Your task to perform on an android device: Search for a dining table on crateandbarrel.com Image 0: 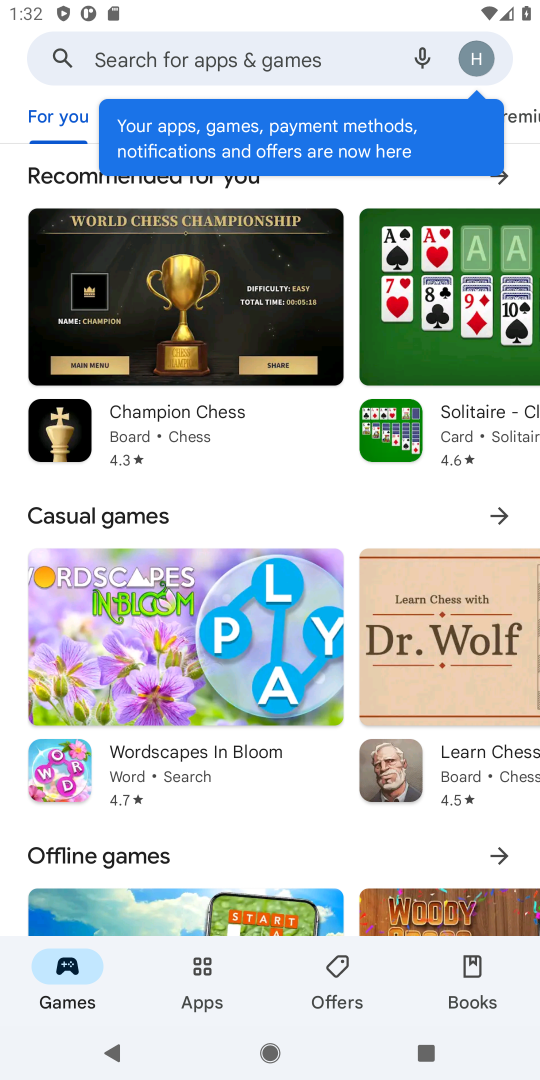
Step 0: press home button
Your task to perform on an android device: Search for a dining table on crateandbarrel.com Image 1: 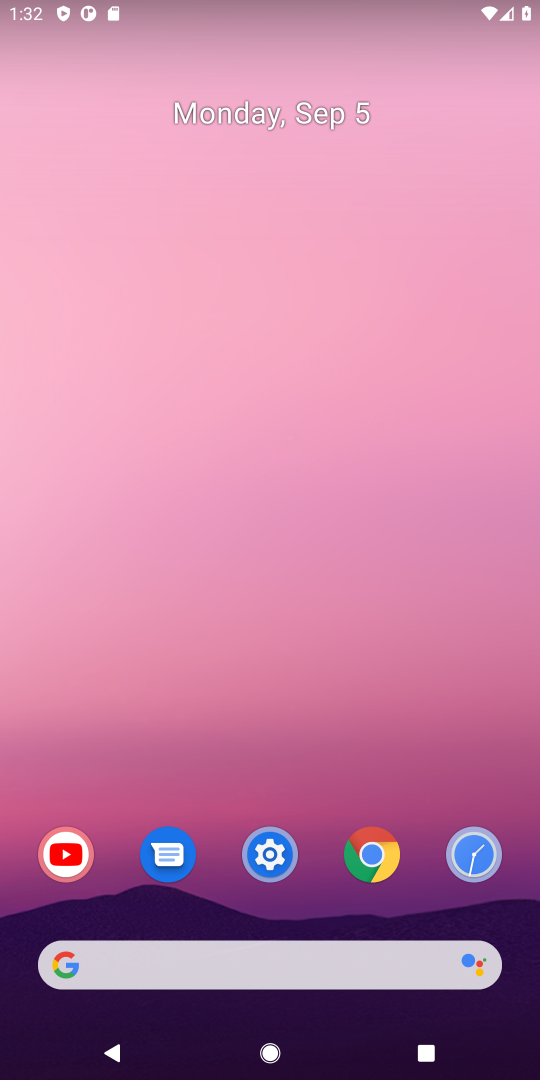
Step 1: click (356, 950)
Your task to perform on an android device: Search for a dining table on crateandbarrel.com Image 2: 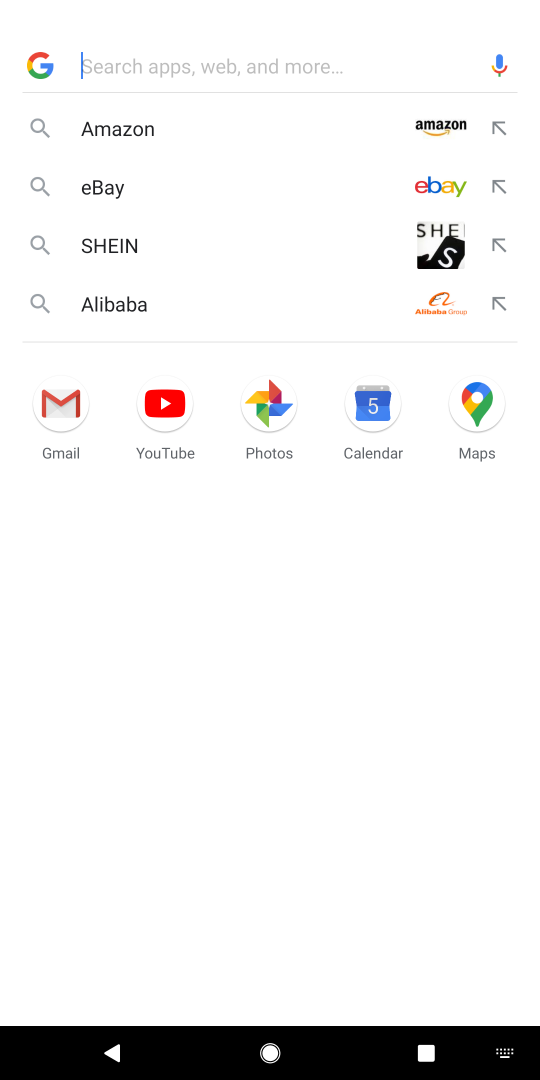
Step 2: type "crateandbarrel.com"
Your task to perform on an android device: Search for a dining table on crateandbarrel.com Image 3: 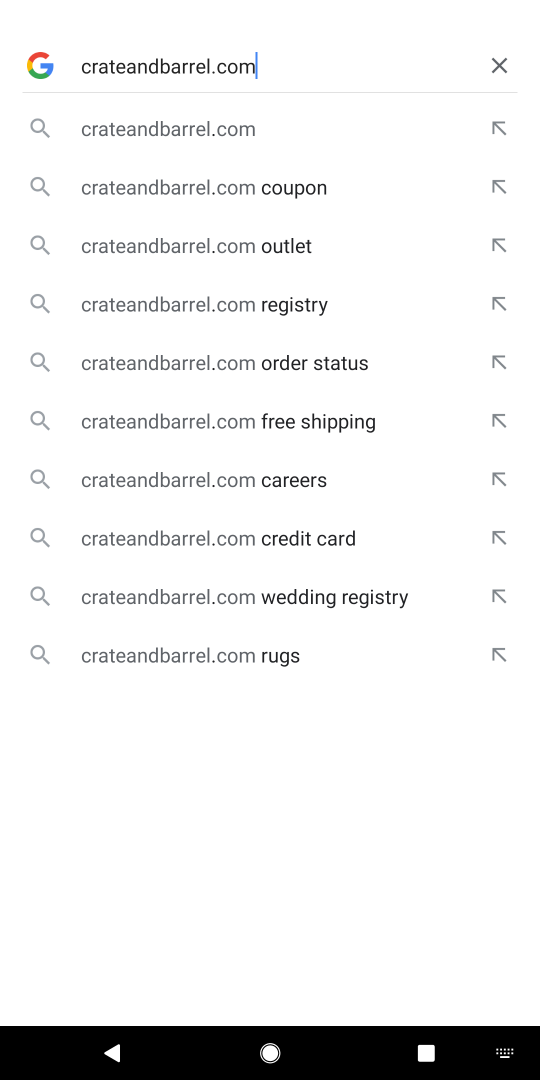
Step 3: click (200, 124)
Your task to perform on an android device: Search for a dining table on crateandbarrel.com Image 4: 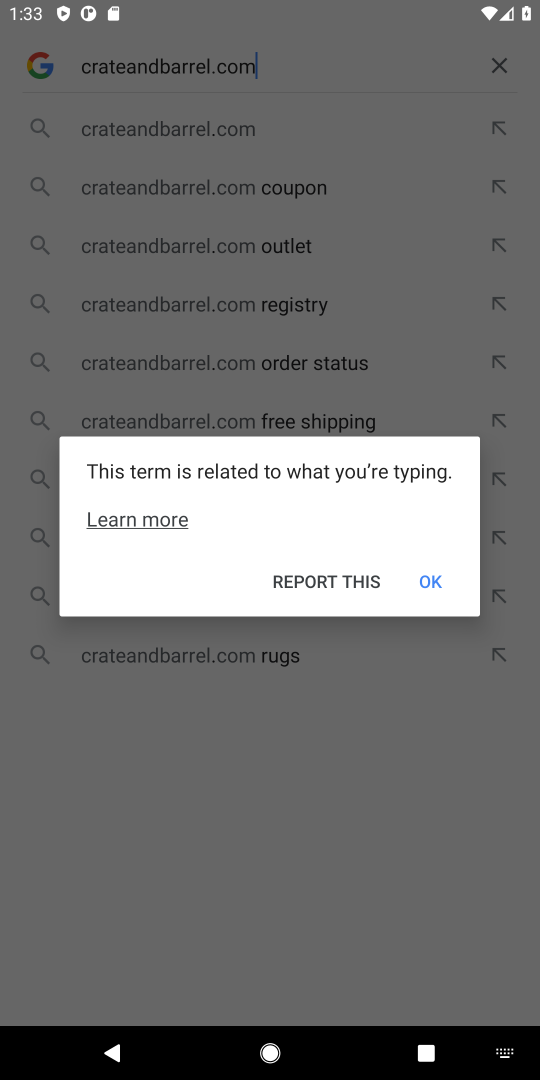
Step 4: click (442, 590)
Your task to perform on an android device: Search for a dining table on crateandbarrel.com Image 5: 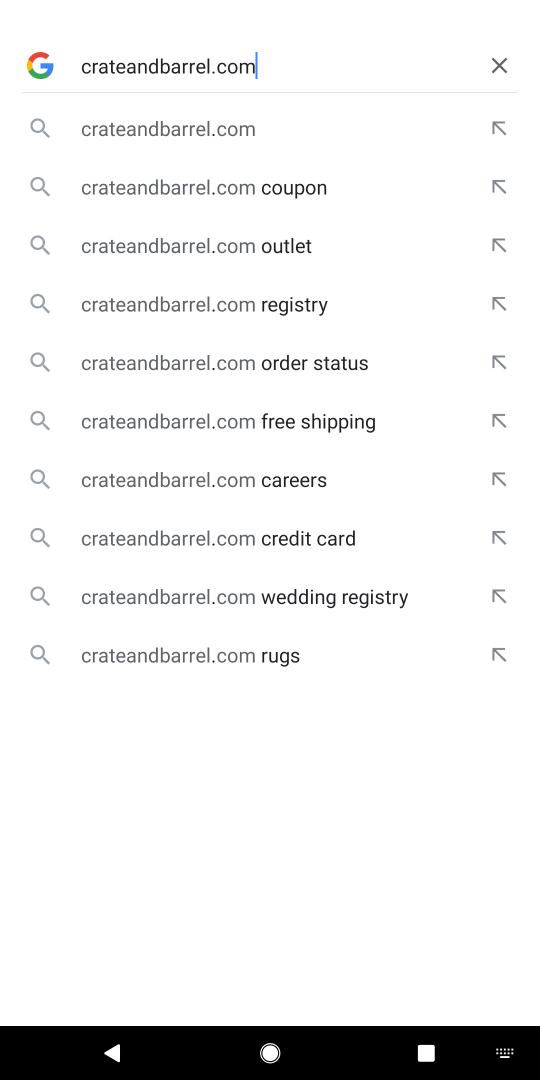
Step 5: click (289, 136)
Your task to perform on an android device: Search for a dining table on crateandbarrel.com Image 6: 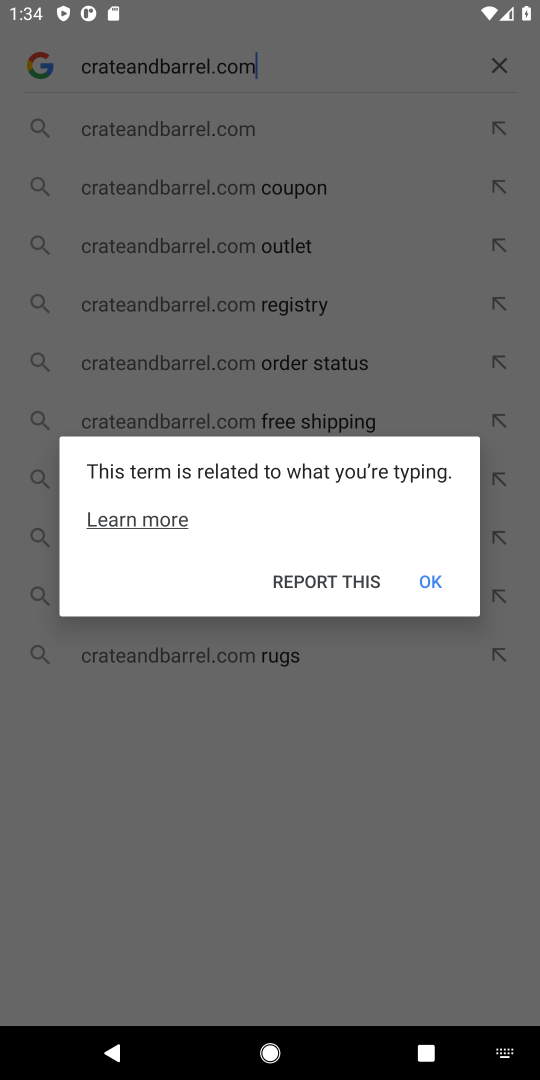
Step 6: click (443, 574)
Your task to perform on an android device: Search for a dining table on crateandbarrel.com Image 7: 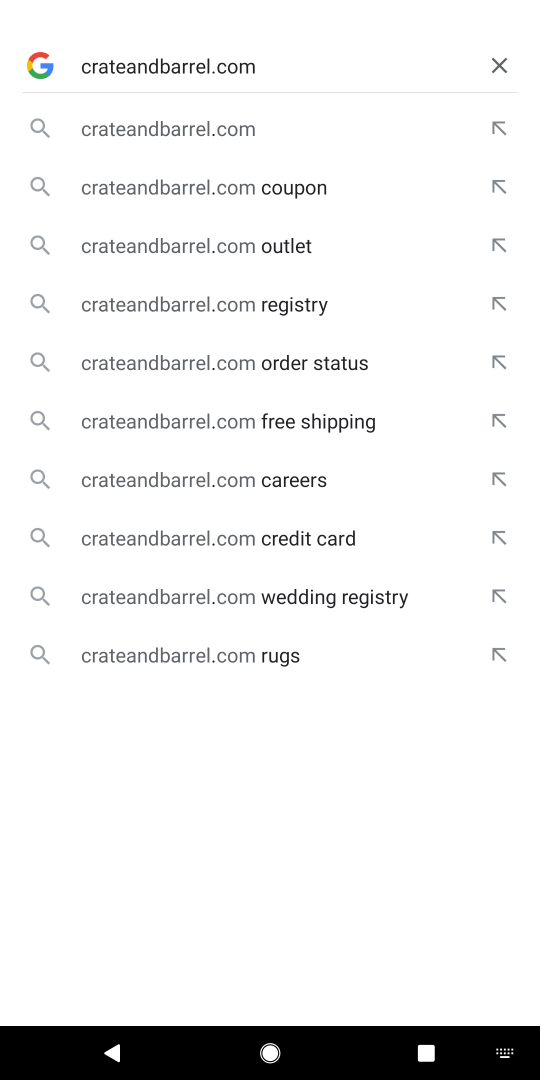
Step 7: click (235, 140)
Your task to perform on an android device: Search for a dining table on crateandbarrel.com Image 8: 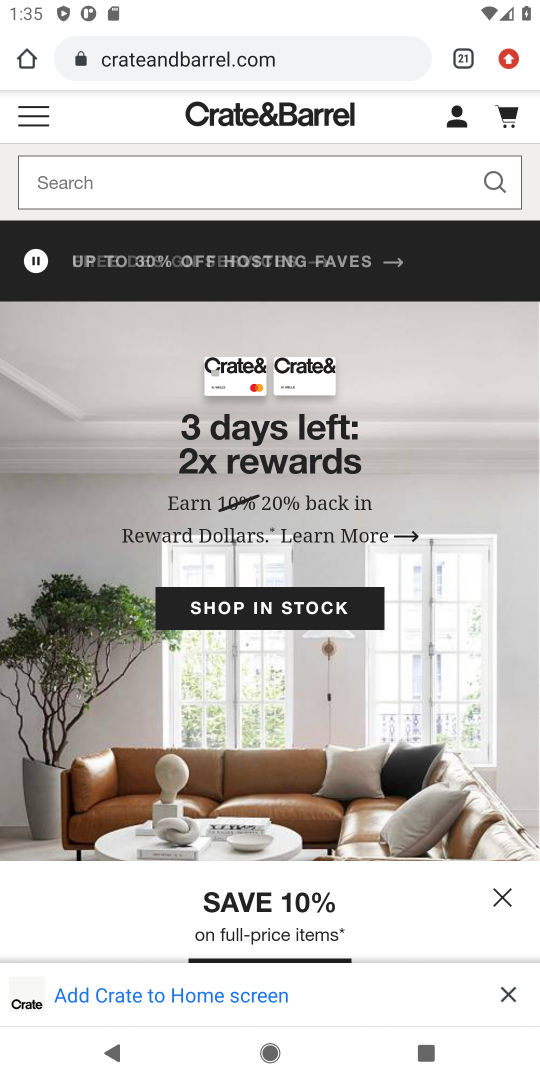
Step 8: click (311, 180)
Your task to perform on an android device: Search for a dining table on crateandbarrel.com Image 9: 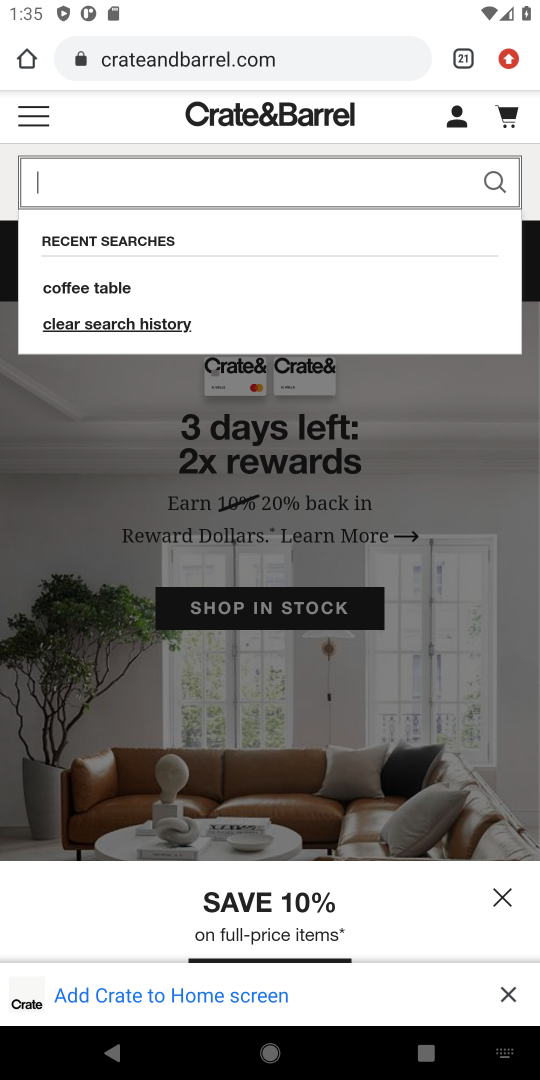
Step 9: type "dining table"
Your task to perform on an android device: Search for a dining table on crateandbarrel.com Image 10: 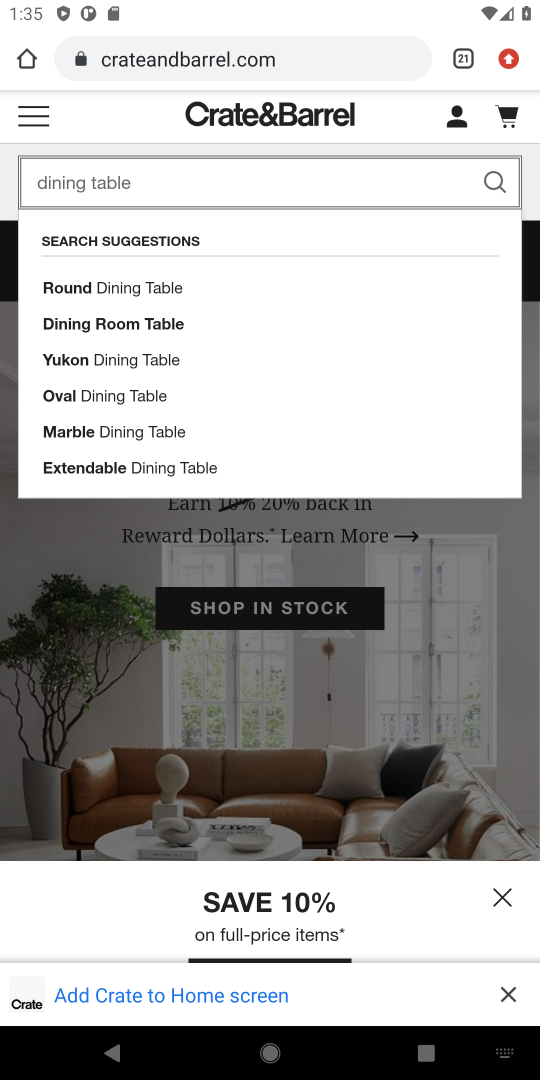
Step 10: click (502, 169)
Your task to perform on an android device: Search for a dining table on crateandbarrel.com Image 11: 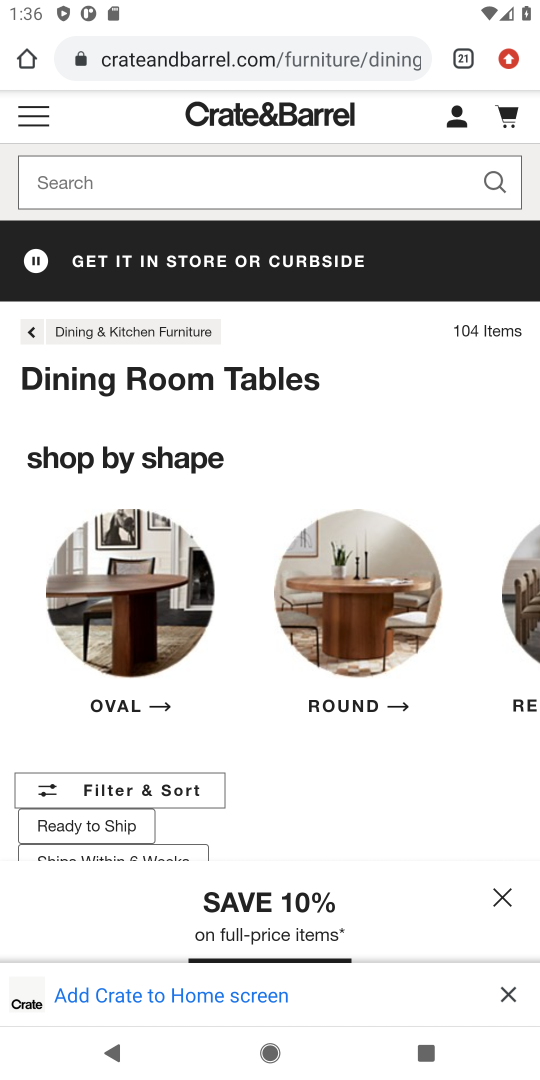
Step 11: click (128, 182)
Your task to perform on an android device: Search for a dining table on crateandbarrel.com Image 12: 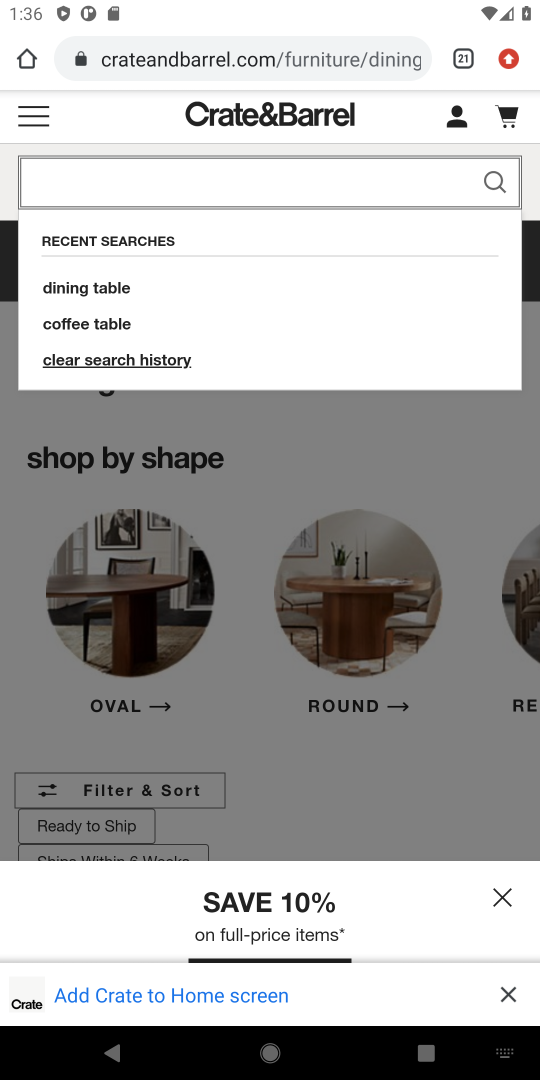
Step 12: type "dining table"
Your task to perform on an android device: Search for a dining table on crateandbarrel.com Image 13: 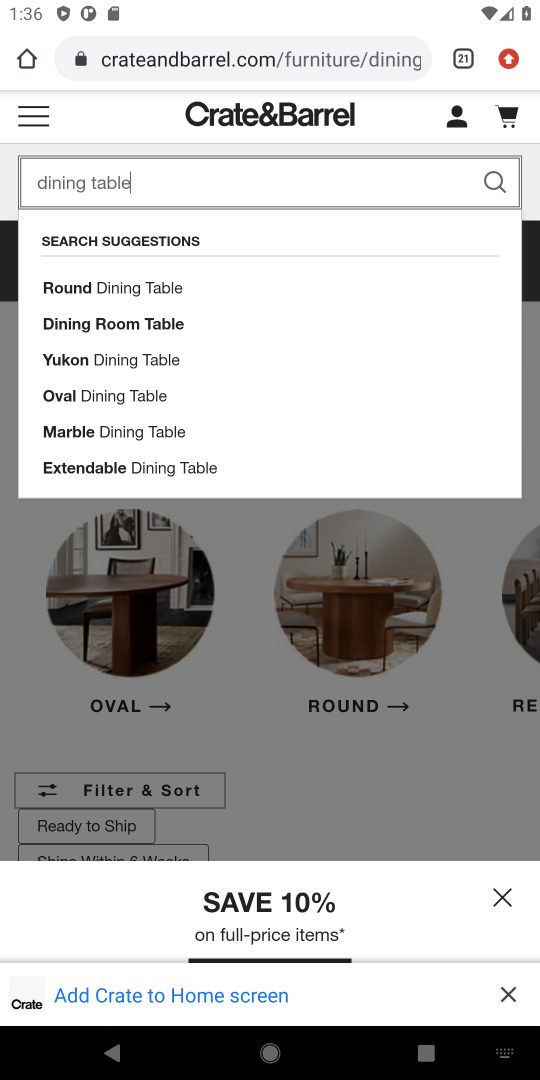
Step 13: click (483, 171)
Your task to perform on an android device: Search for a dining table on crateandbarrel.com Image 14: 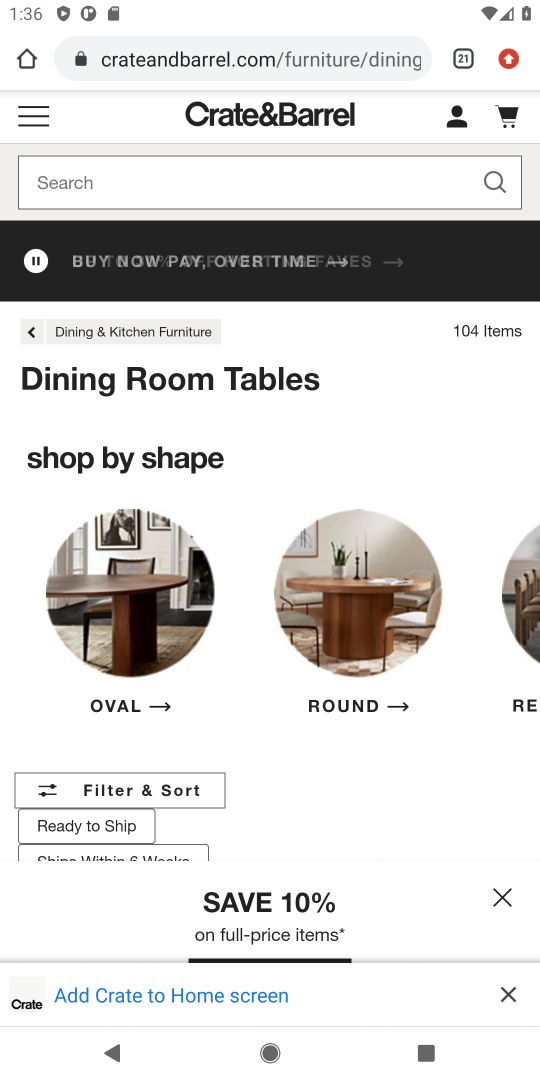
Step 14: task complete